Your task to perform on an android device: Open Google Chrome Image 0: 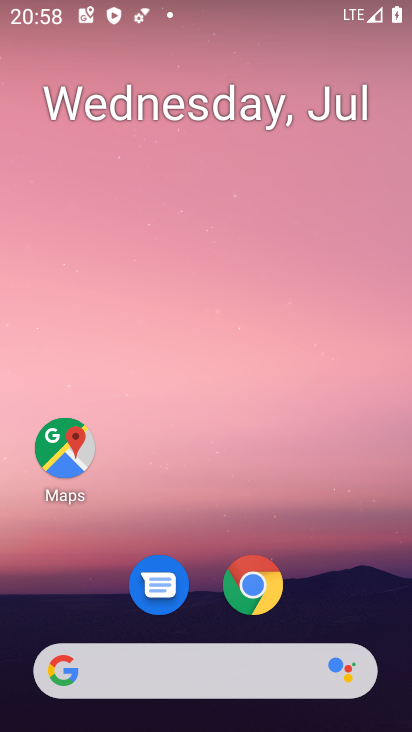
Step 0: click (249, 593)
Your task to perform on an android device: Open Google Chrome Image 1: 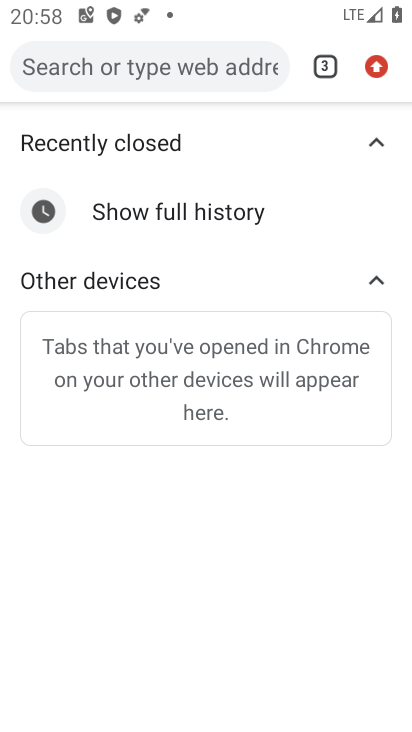
Step 1: click (381, 60)
Your task to perform on an android device: Open Google Chrome Image 2: 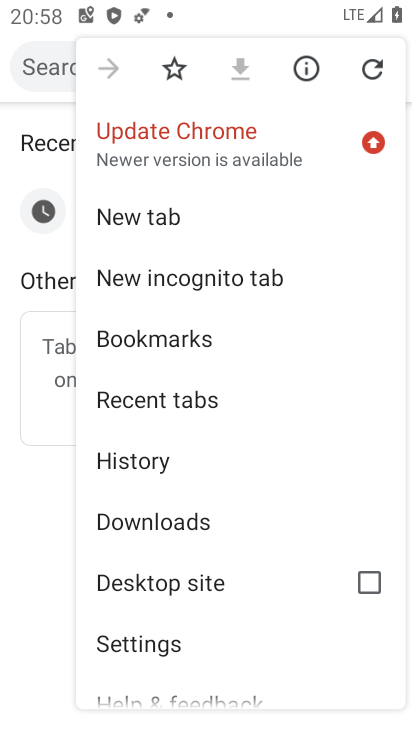
Step 2: click (166, 218)
Your task to perform on an android device: Open Google Chrome Image 3: 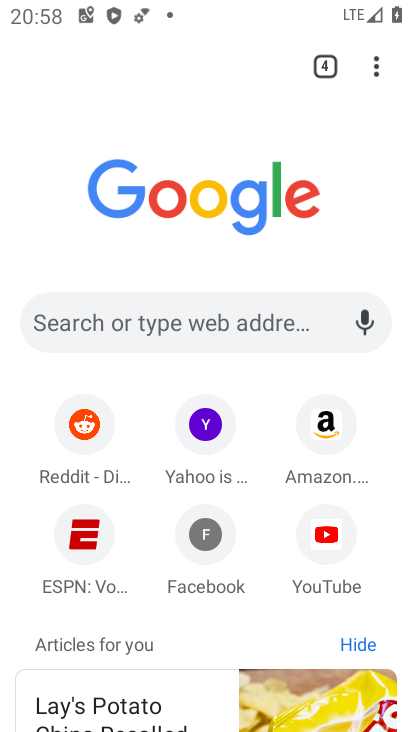
Step 3: task complete